Your task to perform on an android device: What's on my calendar today? Image 0: 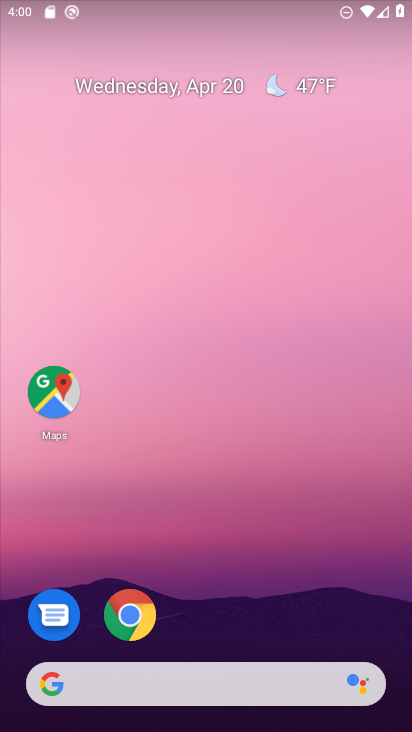
Step 0: drag from (253, 633) to (209, 9)
Your task to perform on an android device: What's on my calendar today? Image 1: 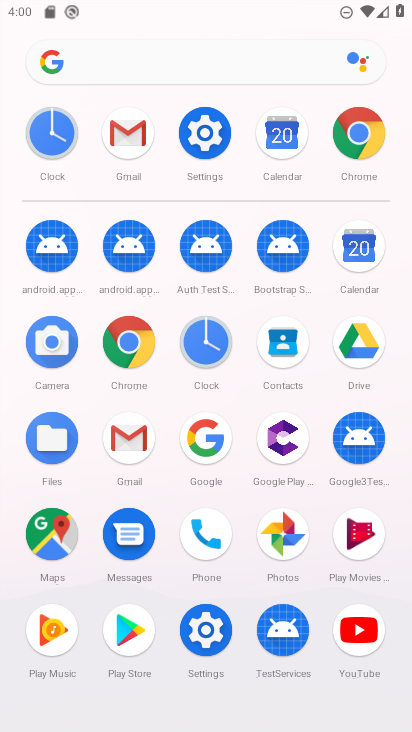
Step 1: click (283, 146)
Your task to perform on an android device: What's on my calendar today? Image 2: 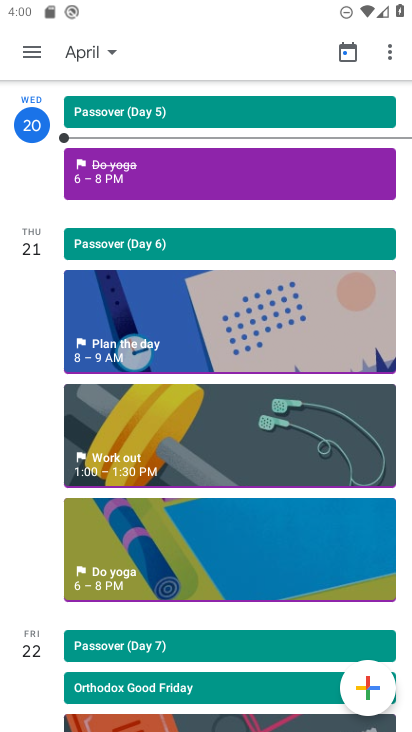
Step 2: task complete